Your task to perform on an android device: empty trash in the gmail app Image 0: 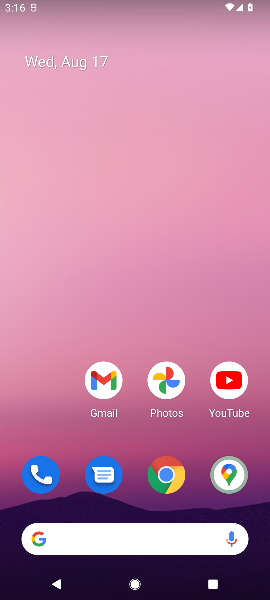
Step 0: drag from (156, 517) to (86, 12)
Your task to perform on an android device: empty trash in the gmail app Image 1: 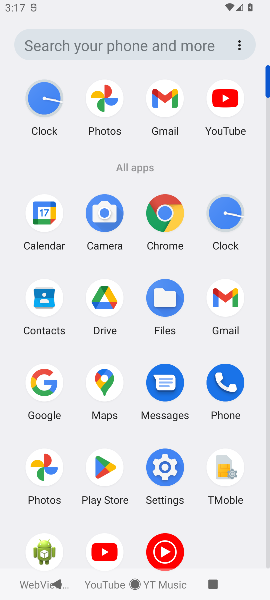
Step 1: click (223, 304)
Your task to perform on an android device: empty trash in the gmail app Image 2: 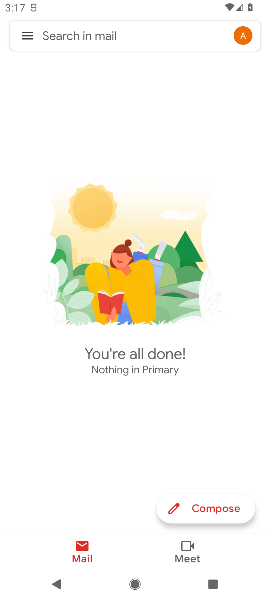
Step 2: click (20, 32)
Your task to perform on an android device: empty trash in the gmail app Image 3: 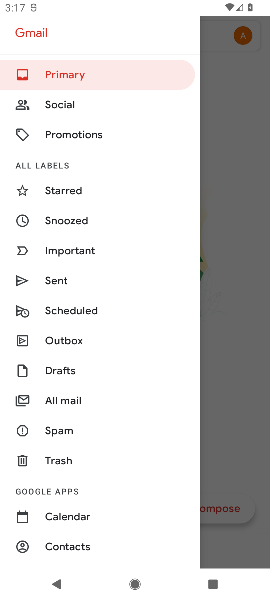
Step 3: click (35, 459)
Your task to perform on an android device: empty trash in the gmail app Image 4: 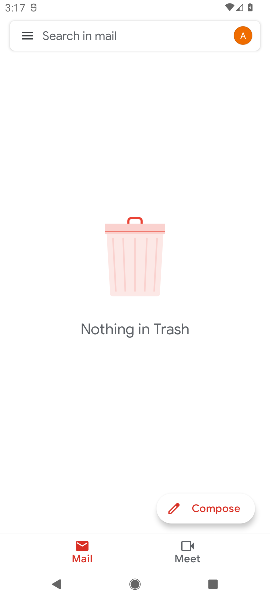
Step 4: task complete